Your task to perform on an android device: change alarm snooze length Image 0: 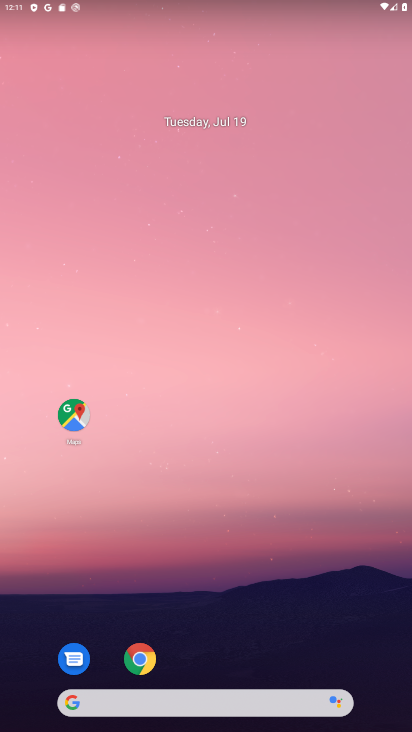
Step 0: drag from (231, 693) to (243, 194)
Your task to perform on an android device: change alarm snooze length Image 1: 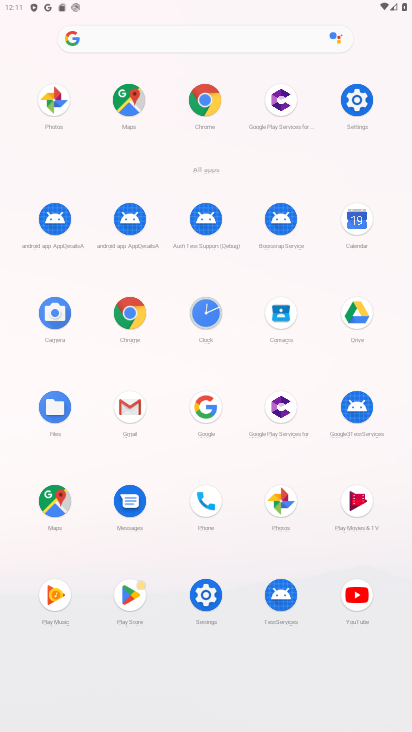
Step 1: click (208, 315)
Your task to perform on an android device: change alarm snooze length Image 2: 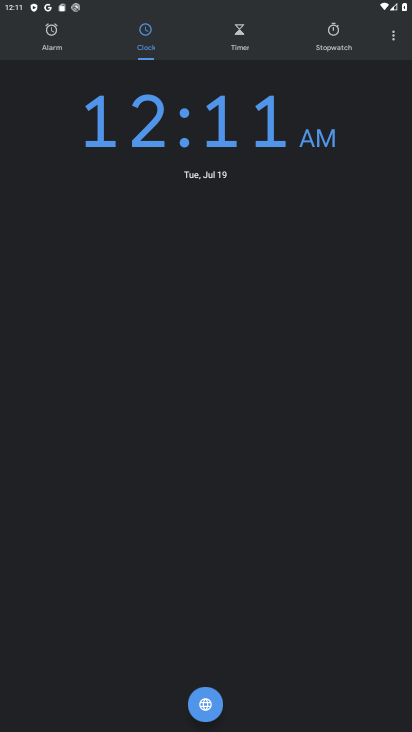
Step 2: click (208, 315)
Your task to perform on an android device: change alarm snooze length Image 3: 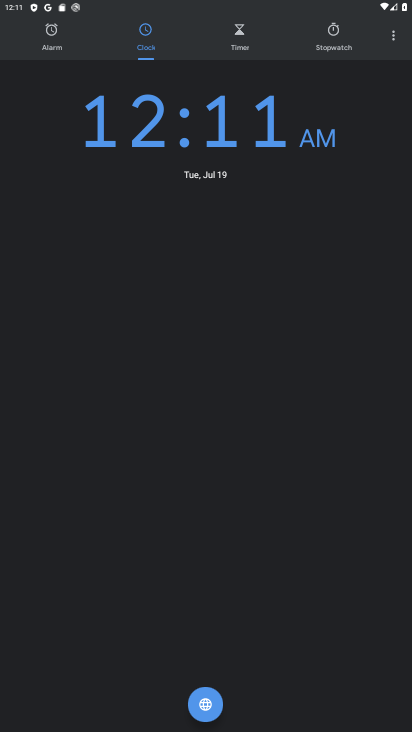
Step 3: click (395, 34)
Your task to perform on an android device: change alarm snooze length Image 4: 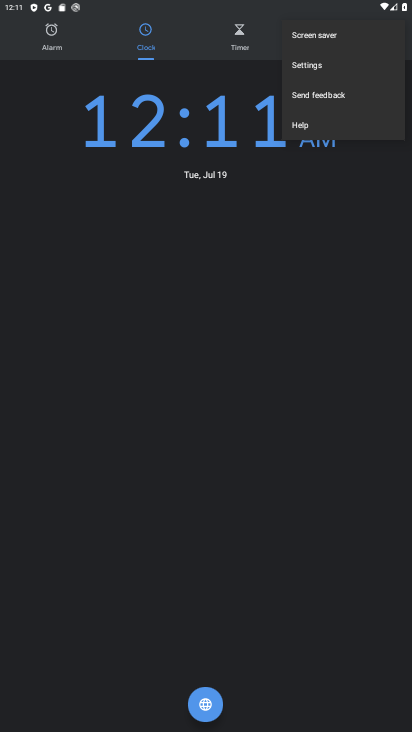
Step 4: click (321, 67)
Your task to perform on an android device: change alarm snooze length Image 5: 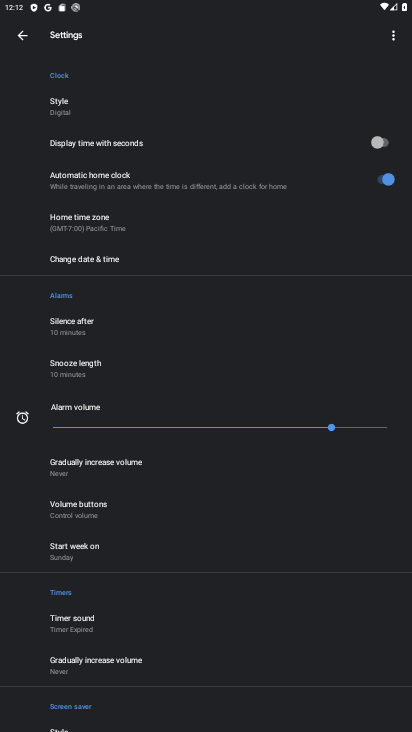
Step 5: click (86, 368)
Your task to perform on an android device: change alarm snooze length Image 6: 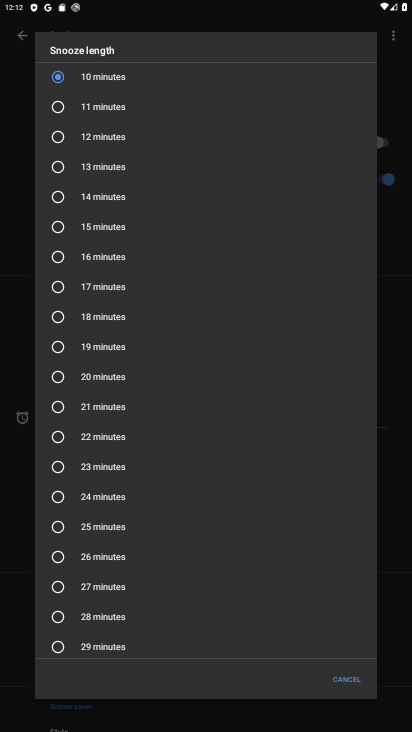
Step 6: drag from (77, 433) to (127, 312)
Your task to perform on an android device: change alarm snooze length Image 7: 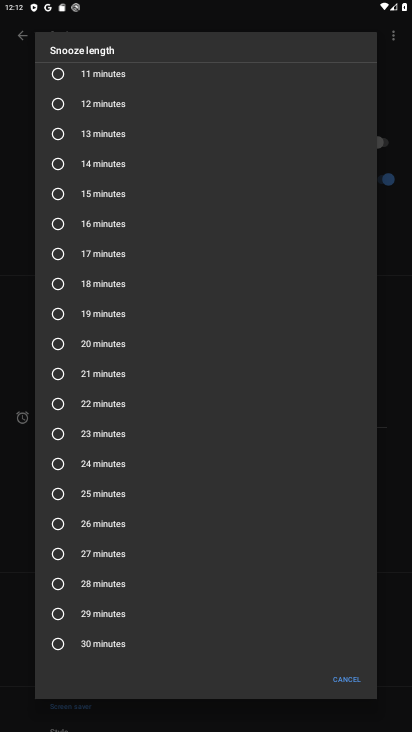
Step 7: click (57, 165)
Your task to perform on an android device: change alarm snooze length Image 8: 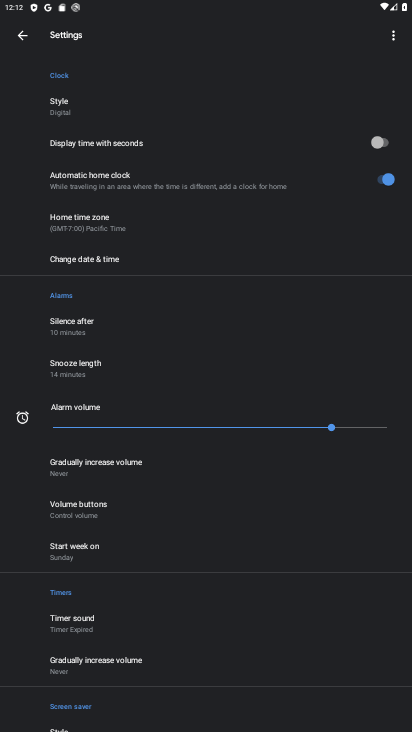
Step 8: task complete